Your task to perform on an android device: remove spam from my inbox in the gmail app Image 0: 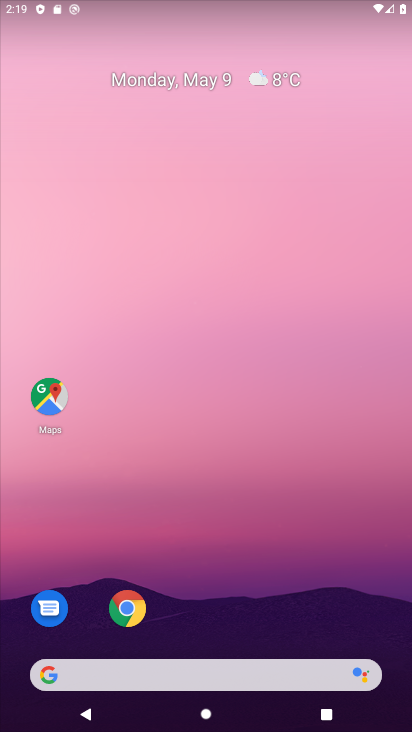
Step 0: drag from (128, 355) to (128, 288)
Your task to perform on an android device: remove spam from my inbox in the gmail app Image 1: 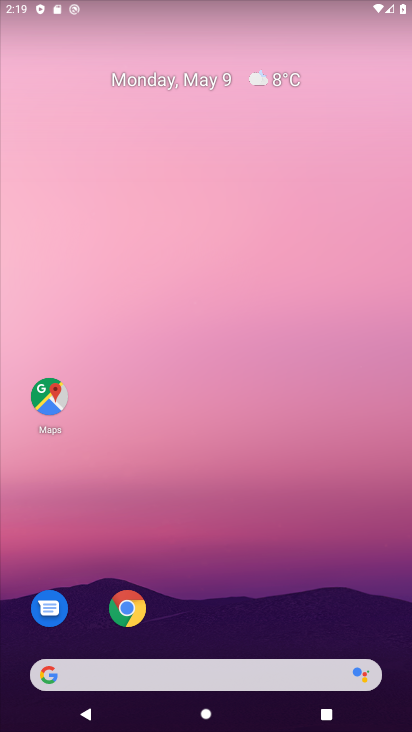
Step 1: drag from (180, 628) to (209, 239)
Your task to perform on an android device: remove spam from my inbox in the gmail app Image 2: 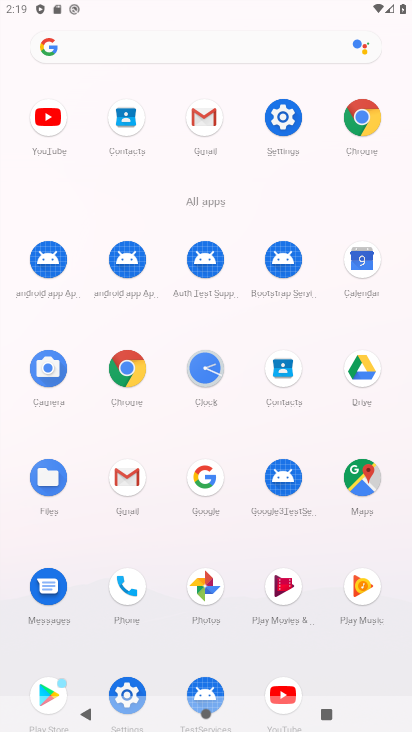
Step 2: click (135, 491)
Your task to perform on an android device: remove spam from my inbox in the gmail app Image 3: 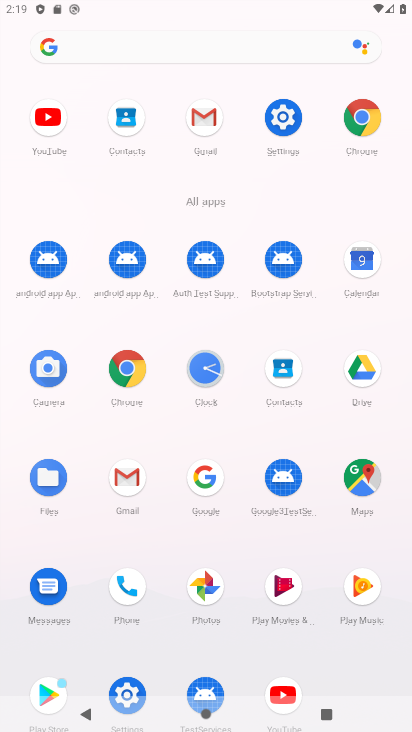
Step 3: click (205, 126)
Your task to perform on an android device: remove spam from my inbox in the gmail app Image 4: 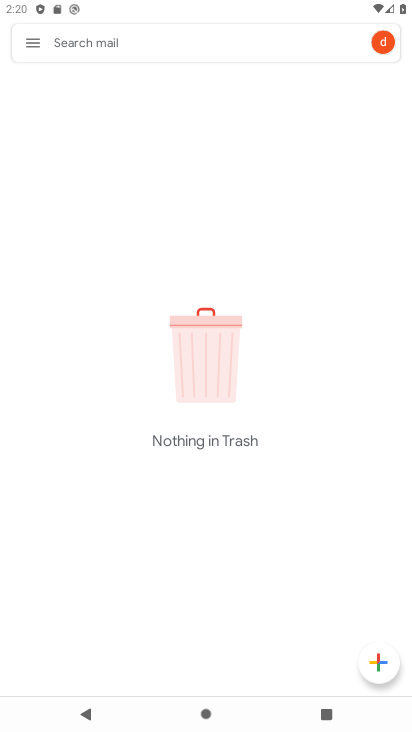
Step 4: click (21, 46)
Your task to perform on an android device: remove spam from my inbox in the gmail app Image 5: 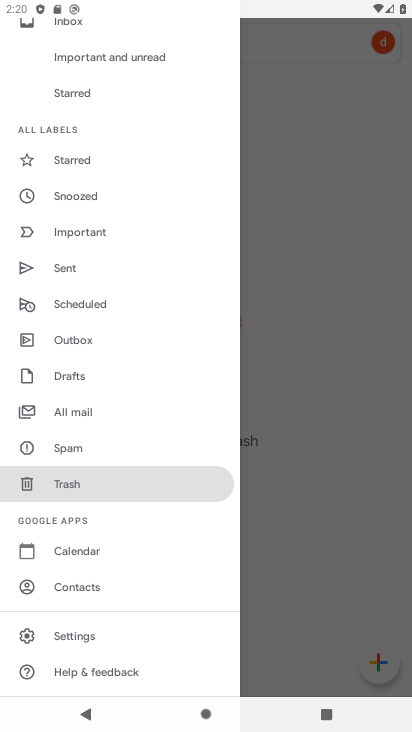
Step 5: click (122, 439)
Your task to perform on an android device: remove spam from my inbox in the gmail app Image 6: 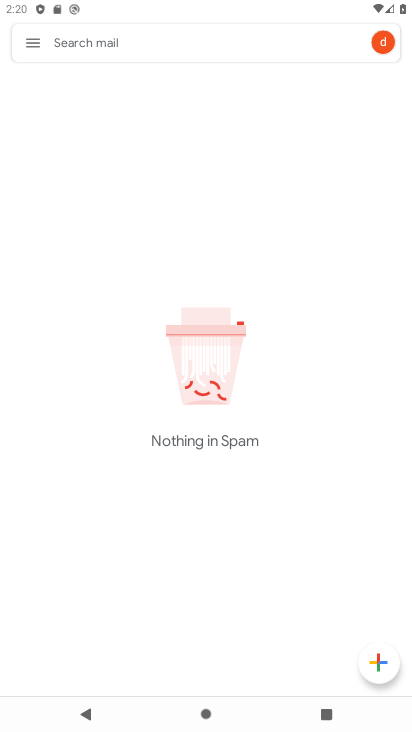
Step 6: task complete